Your task to perform on an android device: allow notifications from all sites in the chrome app Image 0: 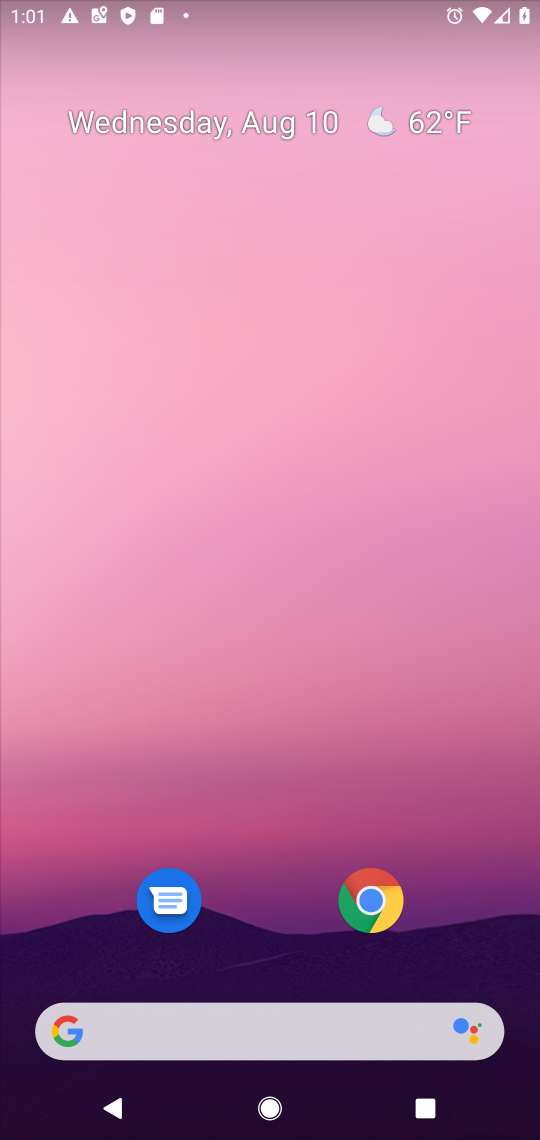
Step 0: click (373, 898)
Your task to perform on an android device: allow notifications from all sites in the chrome app Image 1: 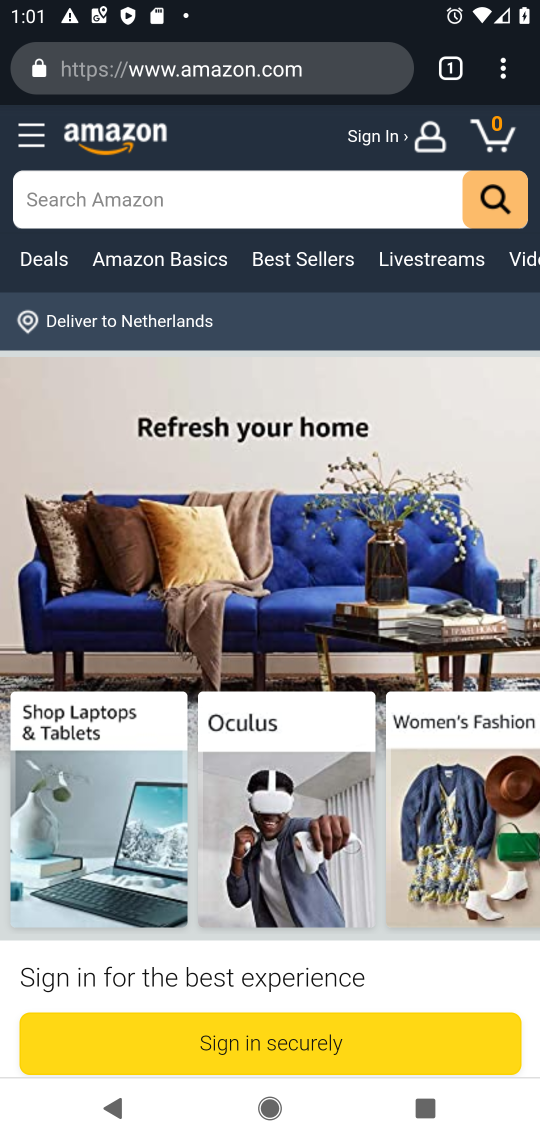
Step 1: click (501, 72)
Your task to perform on an android device: allow notifications from all sites in the chrome app Image 2: 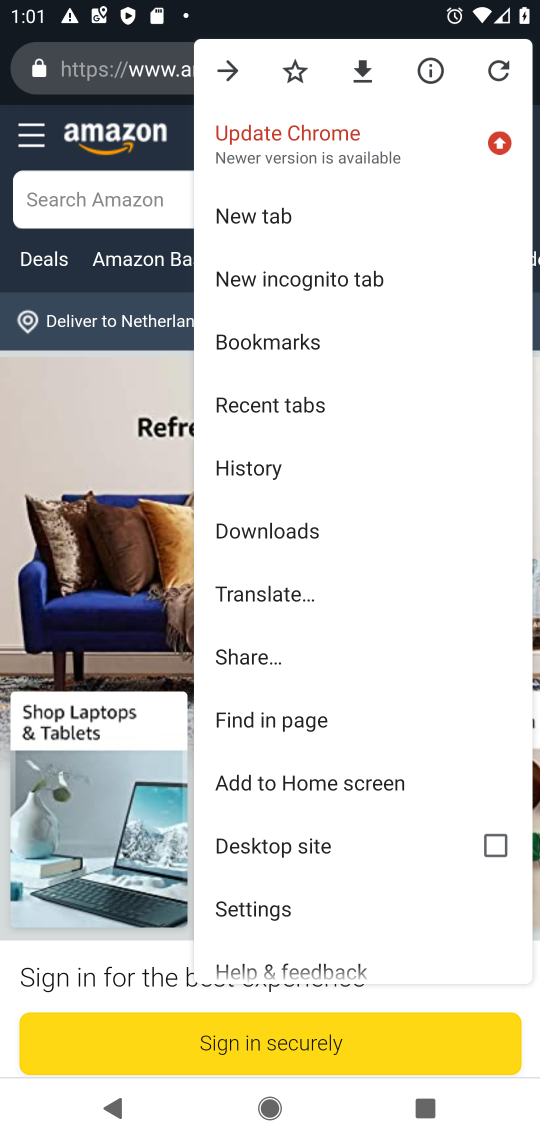
Step 2: click (296, 907)
Your task to perform on an android device: allow notifications from all sites in the chrome app Image 3: 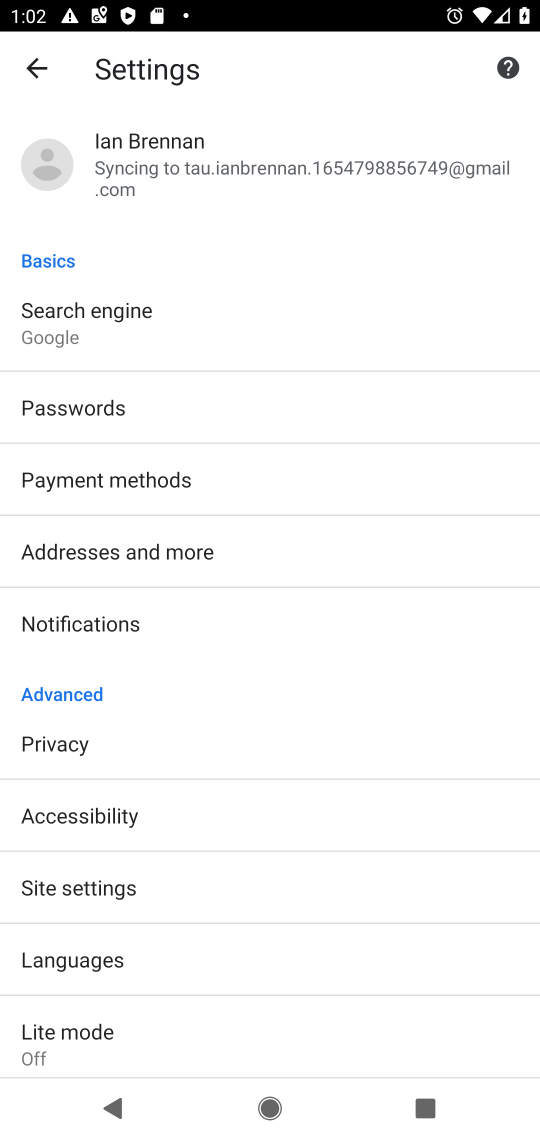
Step 3: click (362, 618)
Your task to perform on an android device: allow notifications from all sites in the chrome app Image 4: 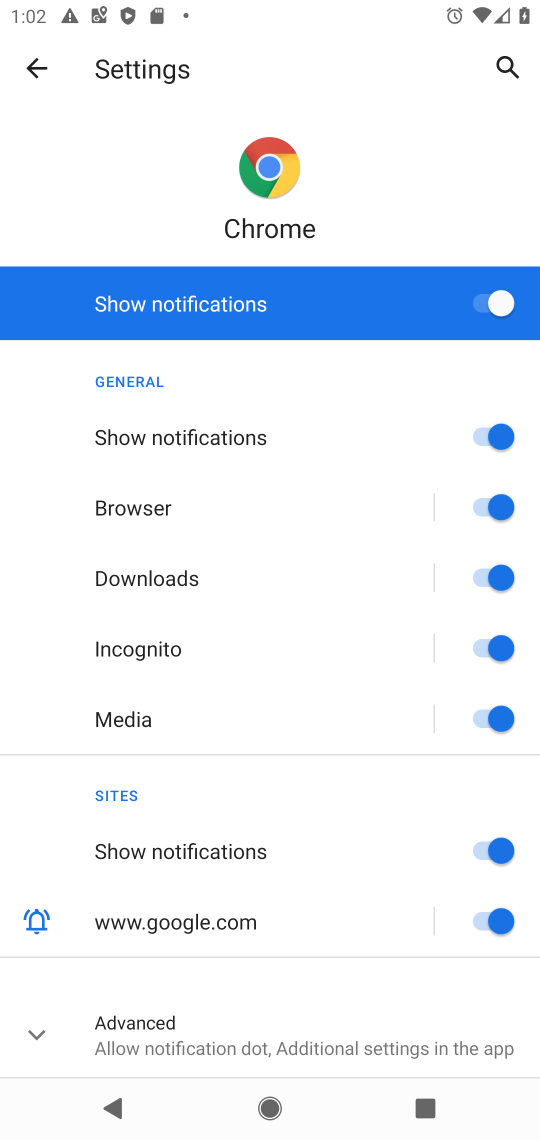
Step 4: task complete